Your task to perform on an android device: Open Youtube and go to the subscriptions tab Image 0: 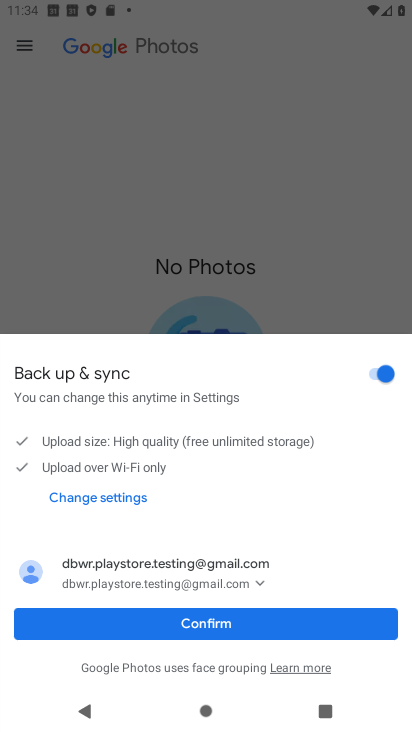
Step 0: press home button
Your task to perform on an android device: Open Youtube and go to the subscriptions tab Image 1: 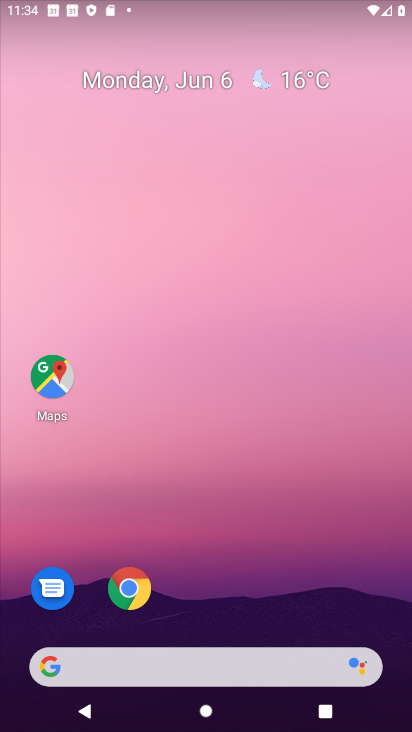
Step 1: drag from (383, 594) to (303, 35)
Your task to perform on an android device: Open Youtube and go to the subscriptions tab Image 2: 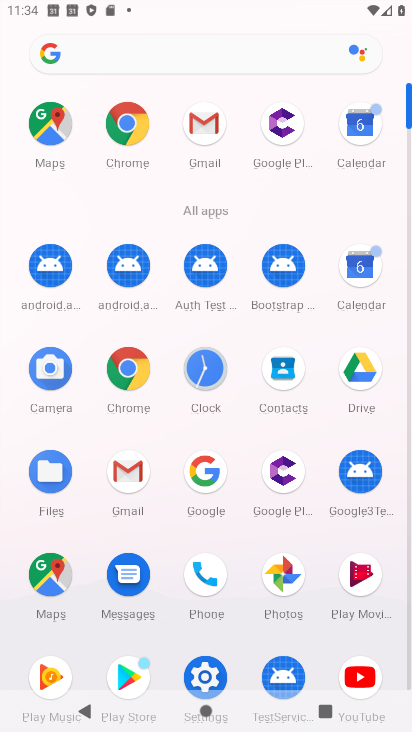
Step 2: click (367, 673)
Your task to perform on an android device: Open Youtube and go to the subscriptions tab Image 3: 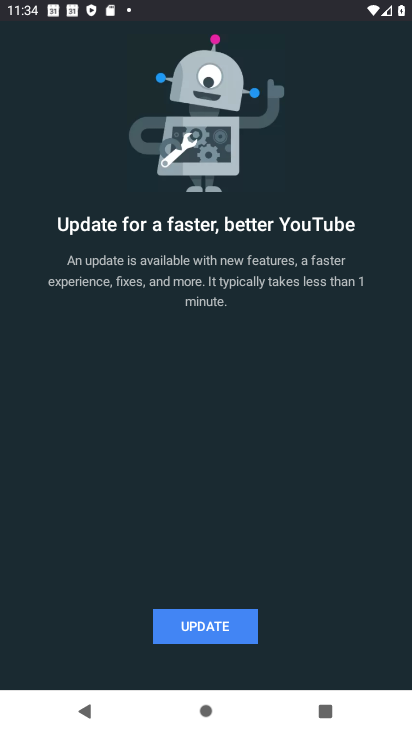
Step 3: click (180, 611)
Your task to perform on an android device: Open Youtube and go to the subscriptions tab Image 4: 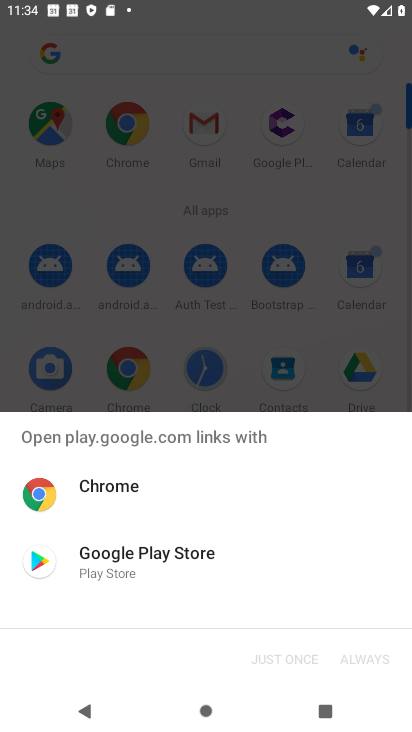
Step 4: click (103, 567)
Your task to perform on an android device: Open Youtube and go to the subscriptions tab Image 5: 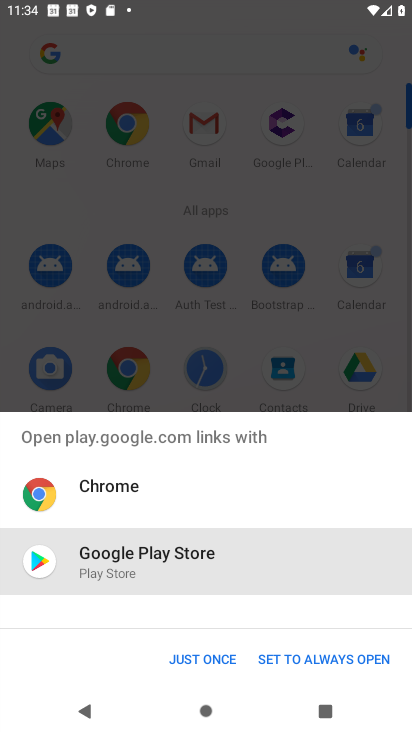
Step 5: click (170, 653)
Your task to perform on an android device: Open Youtube and go to the subscriptions tab Image 6: 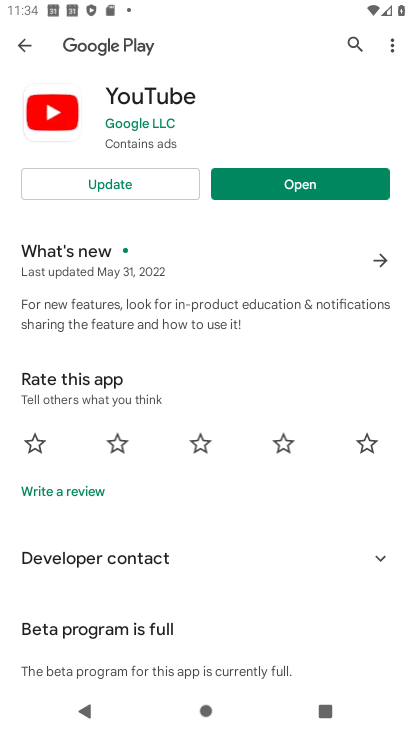
Step 6: click (107, 194)
Your task to perform on an android device: Open Youtube and go to the subscriptions tab Image 7: 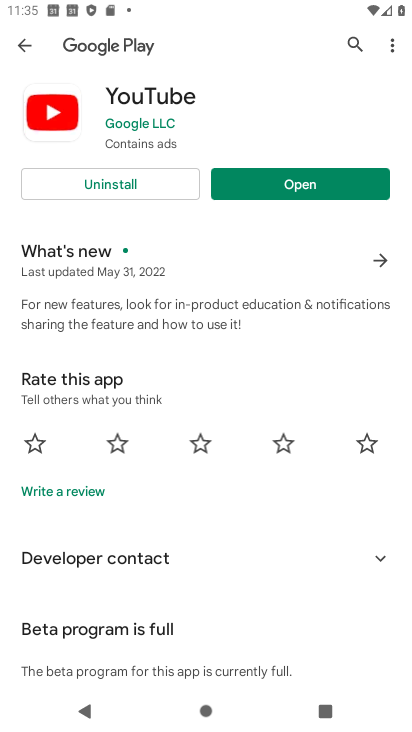
Step 7: click (264, 189)
Your task to perform on an android device: Open Youtube and go to the subscriptions tab Image 8: 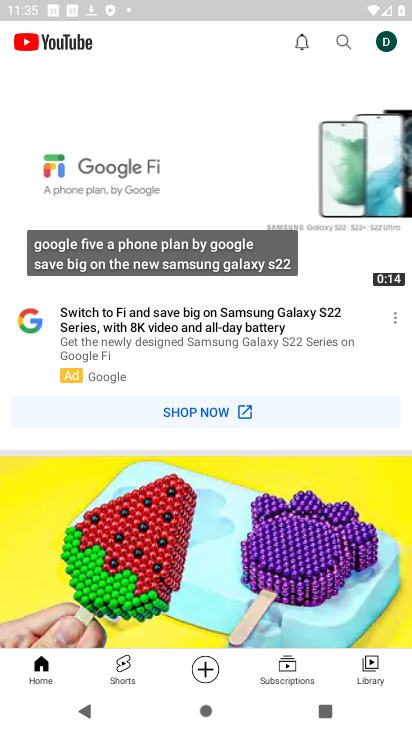
Step 8: click (290, 675)
Your task to perform on an android device: Open Youtube and go to the subscriptions tab Image 9: 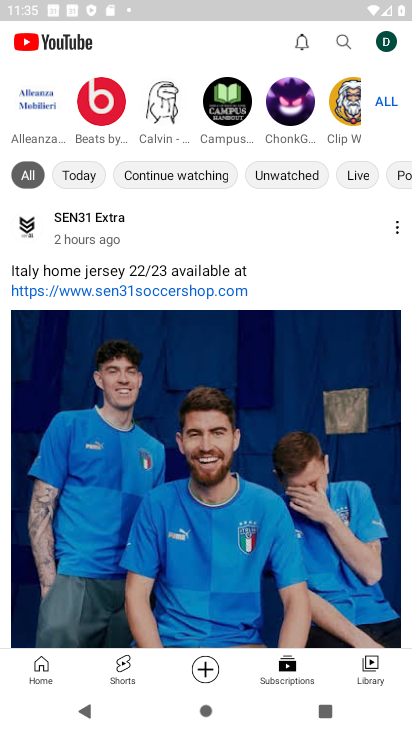
Step 9: task complete